Your task to perform on an android device: Show me popular videos on Youtube Image 0: 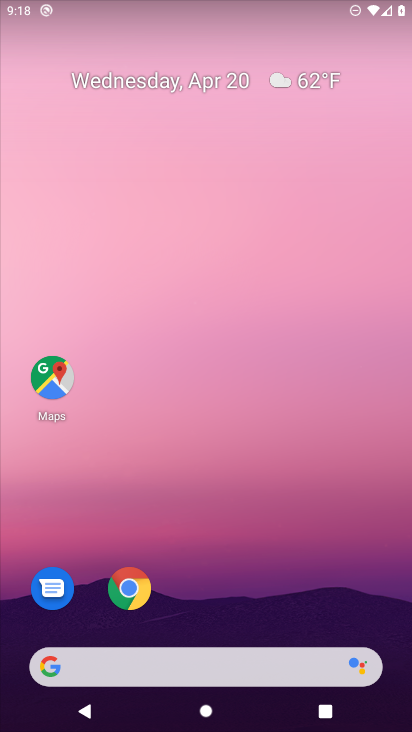
Step 0: drag from (217, 612) to (299, 8)
Your task to perform on an android device: Show me popular videos on Youtube Image 1: 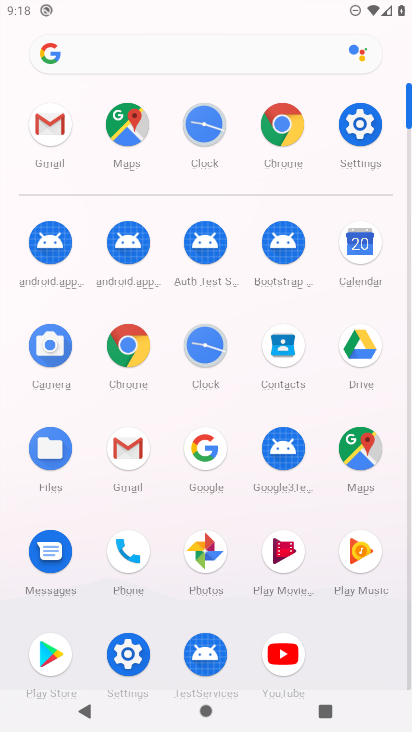
Step 1: click (278, 650)
Your task to perform on an android device: Show me popular videos on Youtube Image 2: 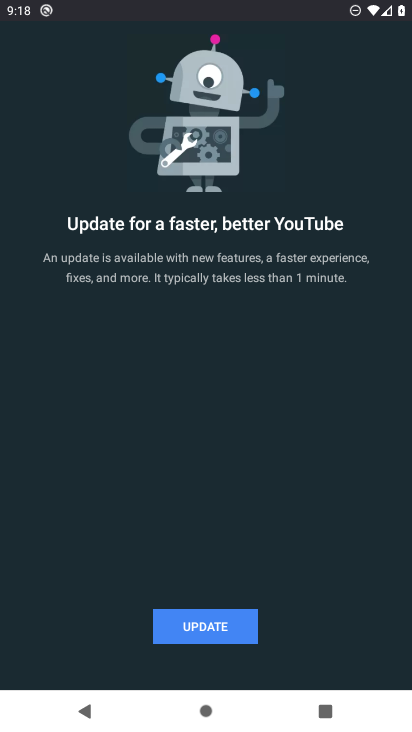
Step 2: click (214, 621)
Your task to perform on an android device: Show me popular videos on Youtube Image 3: 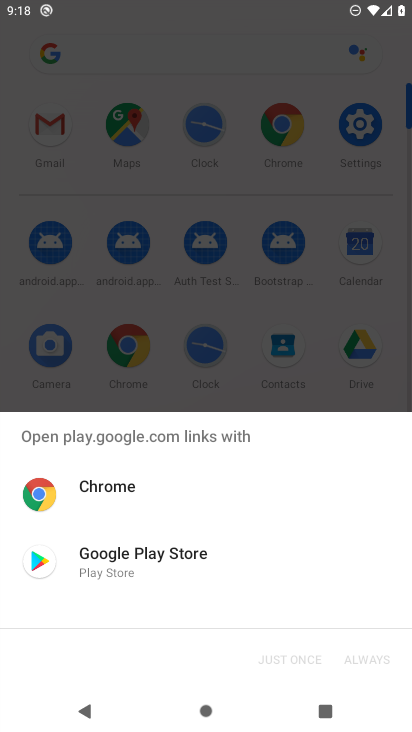
Step 3: click (130, 554)
Your task to perform on an android device: Show me popular videos on Youtube Image 4: 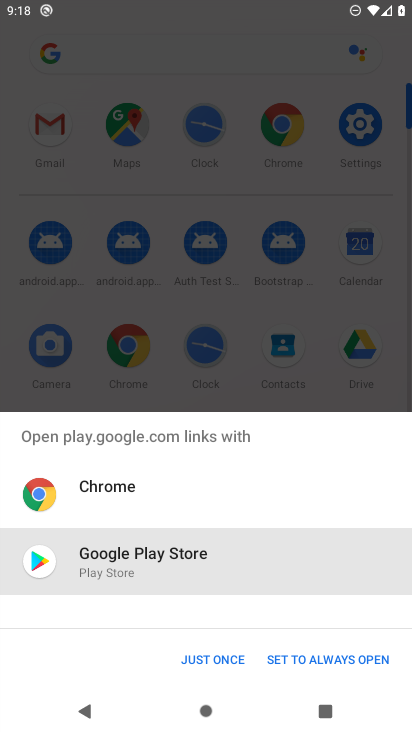
Step 4: click (208, 662)
Your task to perform on an android device: Show me popular videos on Youtube Image 5: 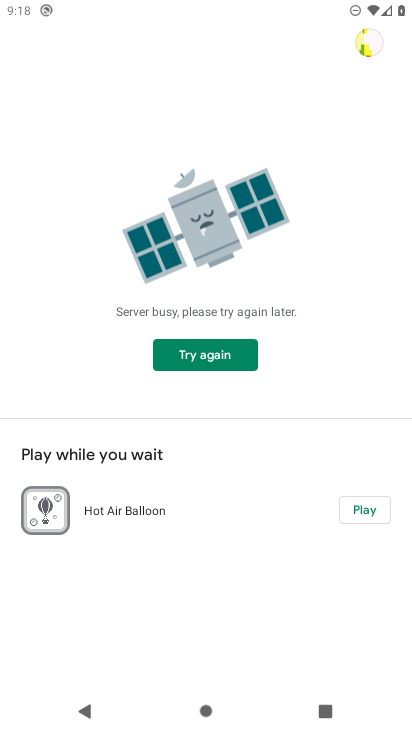
Step 5: press back button
Your task to perform on an android device: Show me popular videos on Youtube Image 6: 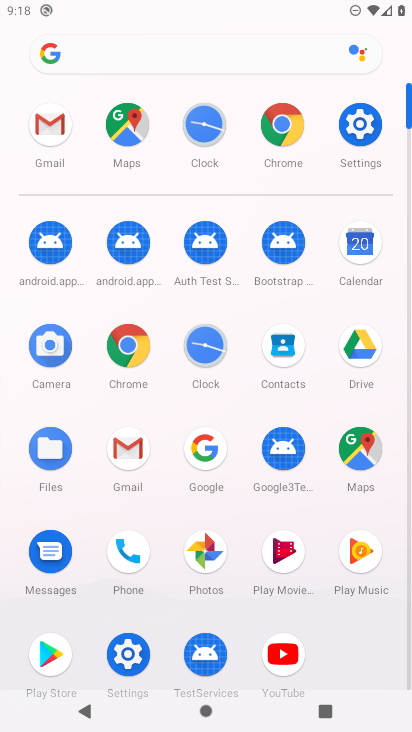
Step 6: click (283, 650)
Your task to perform on an android device: Show me popular videos on Youtube Image 7: 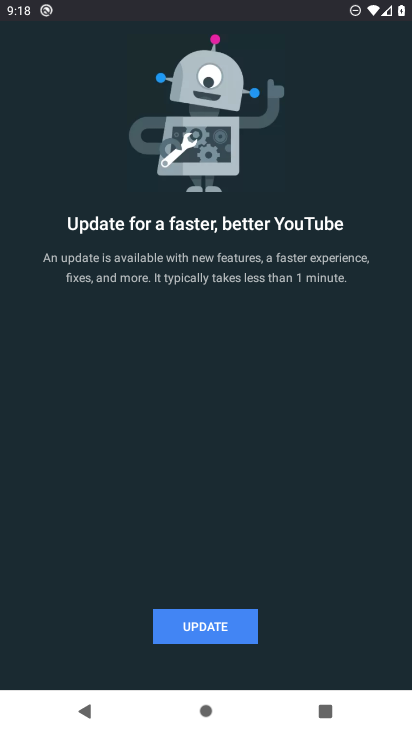
Step 7: click (206, 614)
Your task to perform on an android device: Show me popular videos on Youtube Image 8: 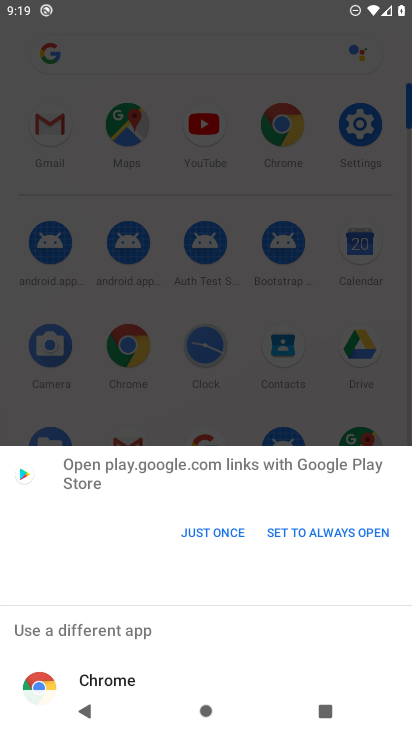
Step 8: click (219, 533)
Your task to perform on an android device: Show me popular videos on Youtube Image 9: 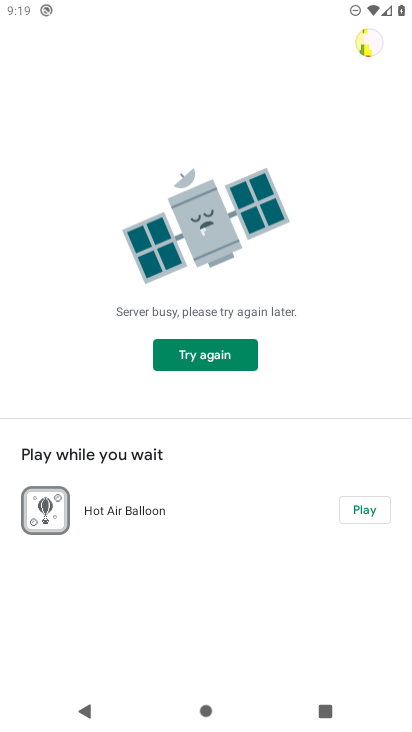
Step 9: click (198, 351)
Your task to perform on an android device: Show me popular videos on Youtube Image 10: 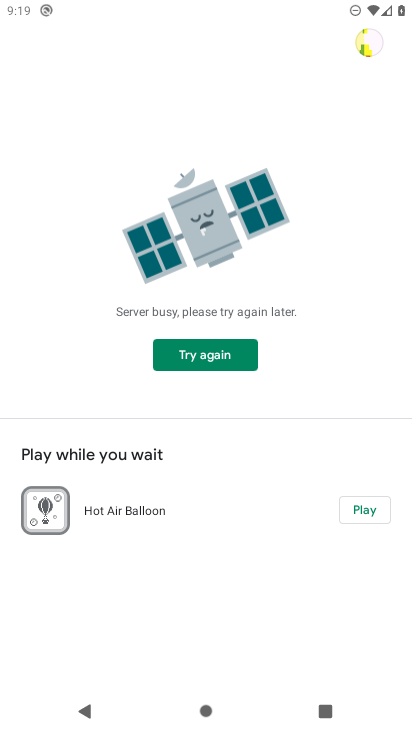
Step 10: task complete